Your task to perform on an android device: Open privacy settings Image 0: 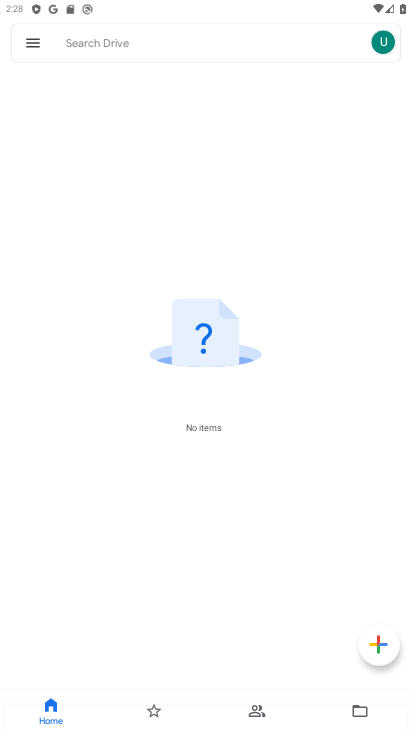
Step 0: press home button
Your task to perform on an android device: Open privacy settings Image 1: 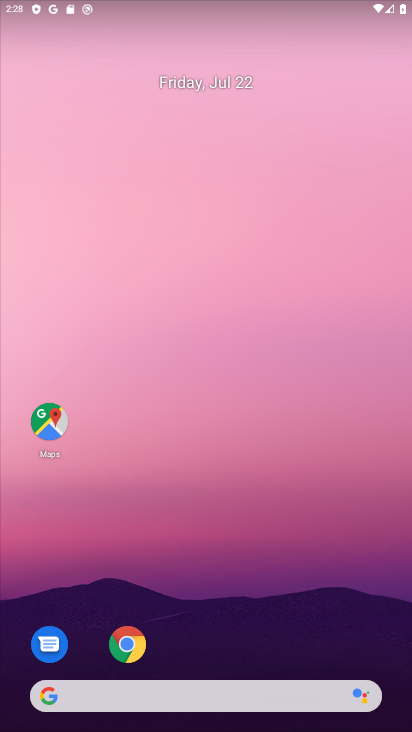
Step 1: drag from (245, 607) to (234, 279)
Your task to perform on an android device: Open privacy settings Image 2: 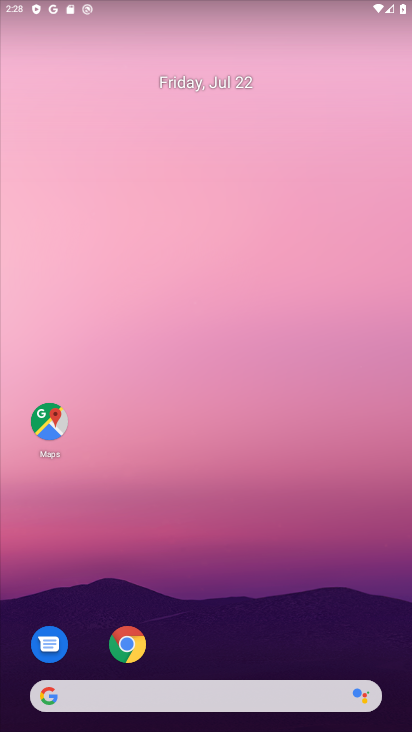
Step 2: drag from (239, 602) to (266, 130)
Your task to perform on an android device: Open privacy settings Image 3: 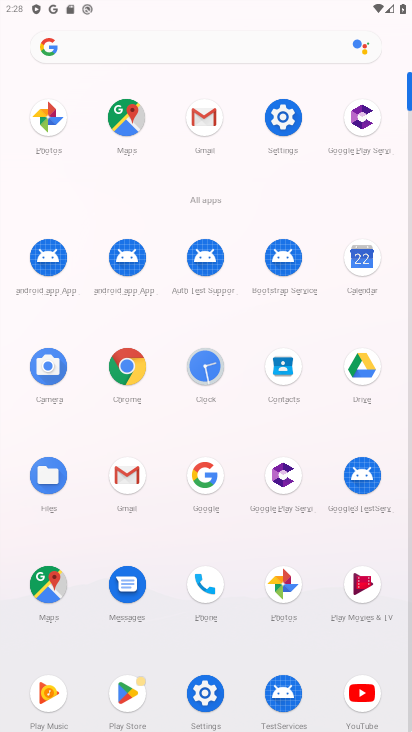
Step 3: click (211, 682)
Your task to perform on an android device: Open privacy settings Image 4: 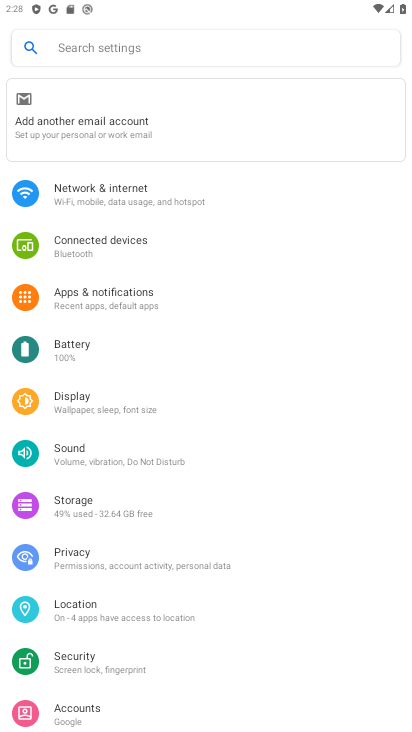
Step 4: click (120, 564)
Your task to perform on an android device: Open privacy settings Image 5: 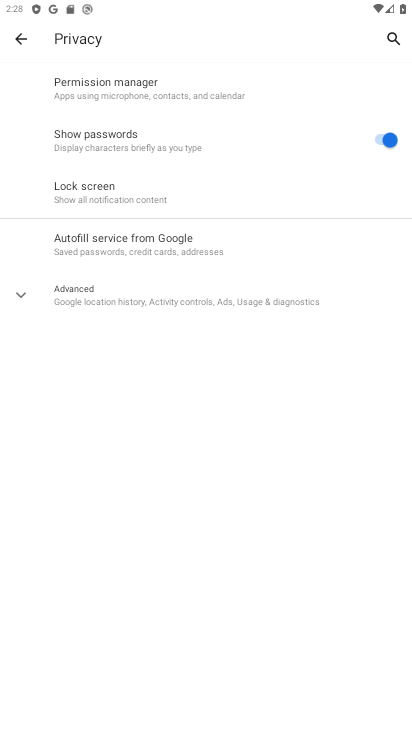
Step 5: task complete